Your task to perform on an android device: When is my next meeting? Image 0: 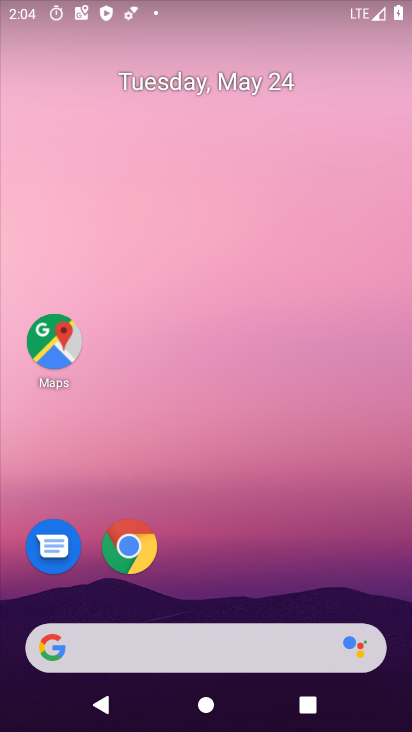
Step 0: drag from (212, 479) to (196, 148)
Your task to perform on an android device: When is my next meeting? Image 1: 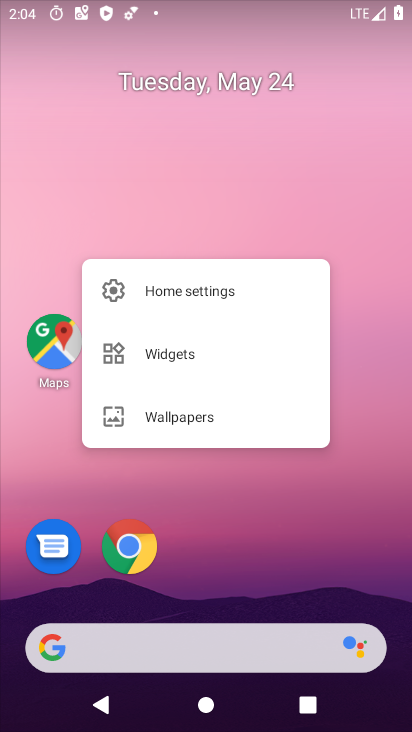
Step 1: drag from (220, 638) to (173, 65)
Your task to perform on an android device: When is my next meeting? Image 2: 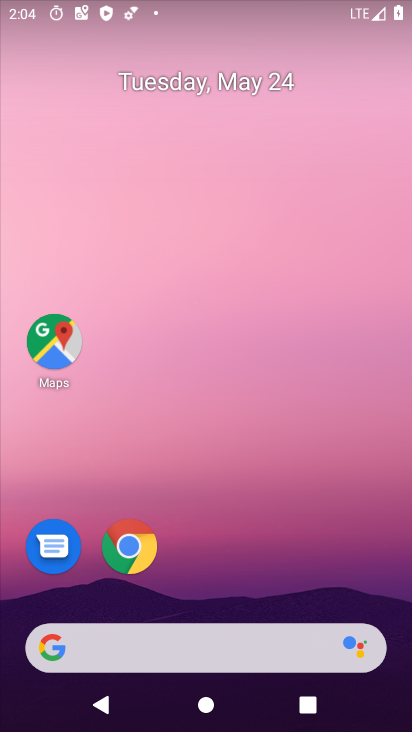
Step 2: drag from (223, 647) to (213, 155)
Your task to perform on an android device: When is my next meeting? Image 3: 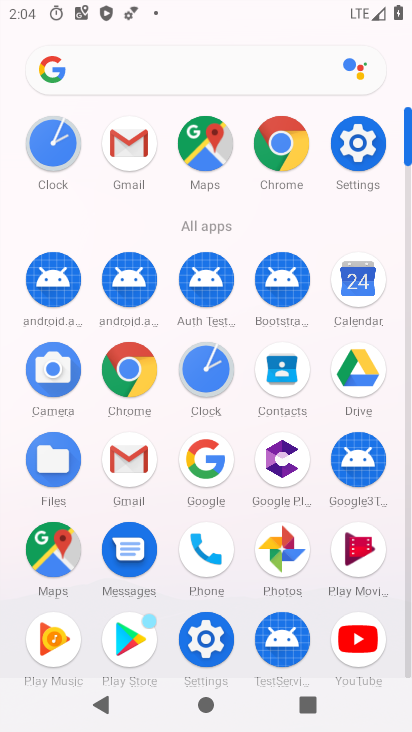
Step 3: click (352, 284)
Your task to perform on an android device: When is my next meeting? Image 4: 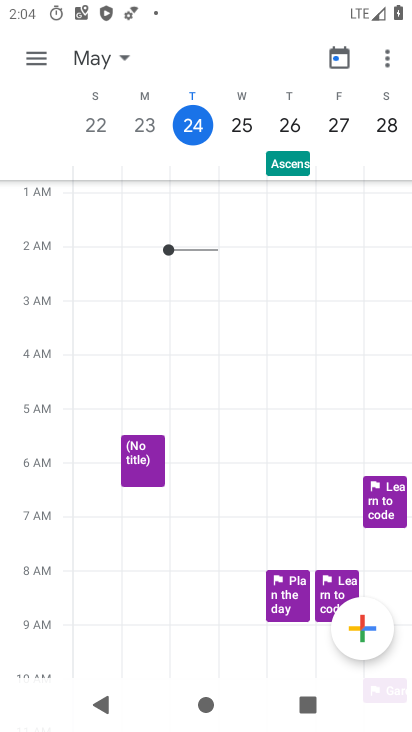
Step 4: click (49, 61)
Your task to perform on an android device: When is my next meeting? Image 5: 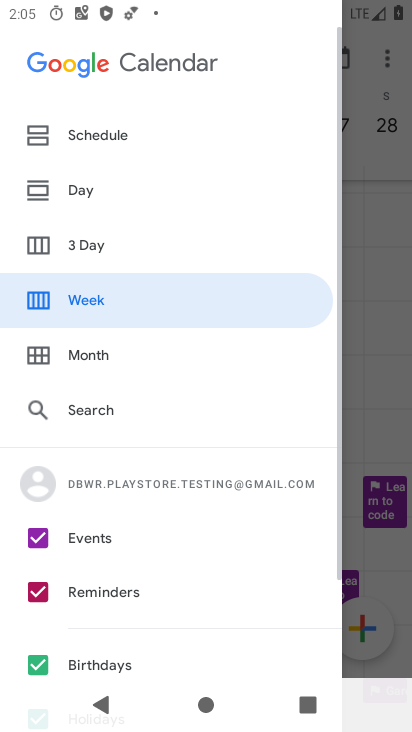
Step 5: click (125, 129)
Your task to perform on an android device: When is my next meeting? Image 6: 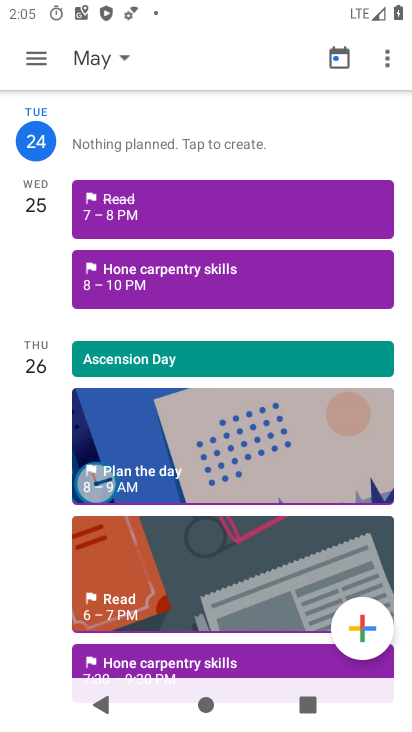
Step 6: task complete